Your task to perform on an android device: turn off improve location accuracy Image 0: 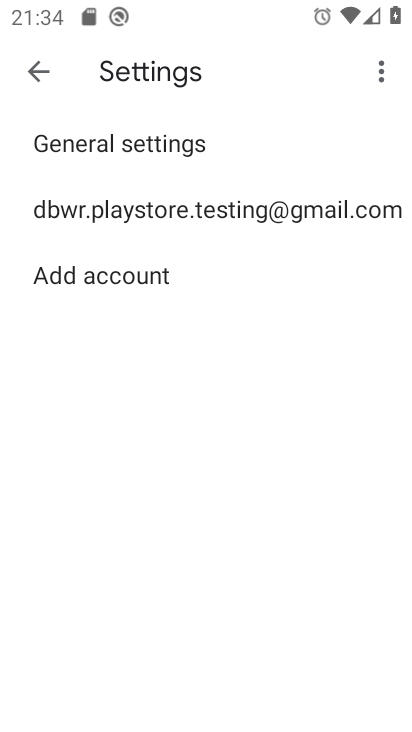
Step 0: press home button
Your task to perform on an android device: turn off improve location accuracy Image 1: 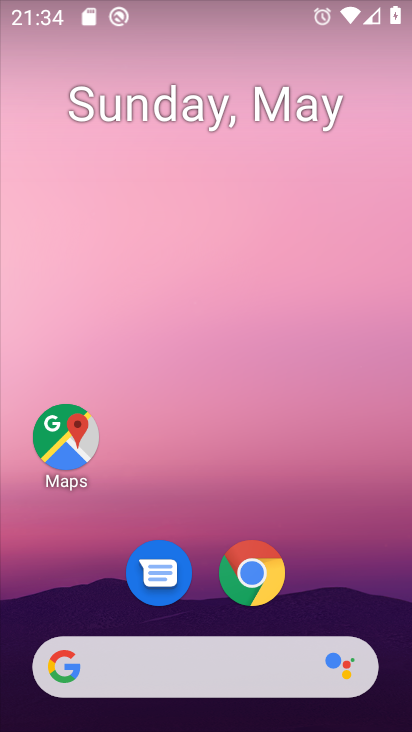
Step 1: drag from (250, 465) to (267, 0)
Your task to perform on an android device: turn off improve location accuracy Image 2: 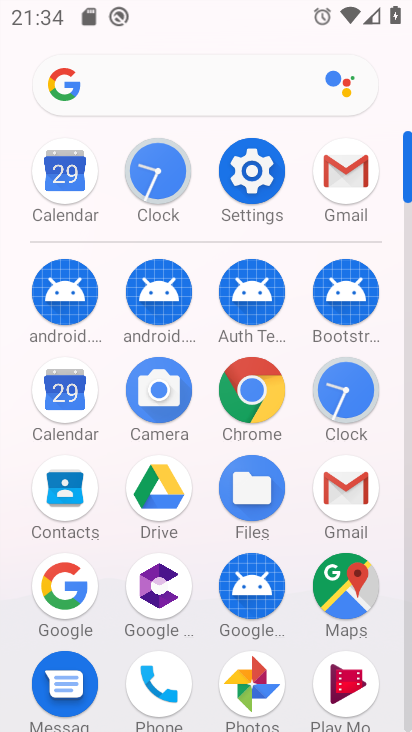
Step 2: click (259, 156)
Your task to perform on an android device: turn off improve location accuracy Image 3: 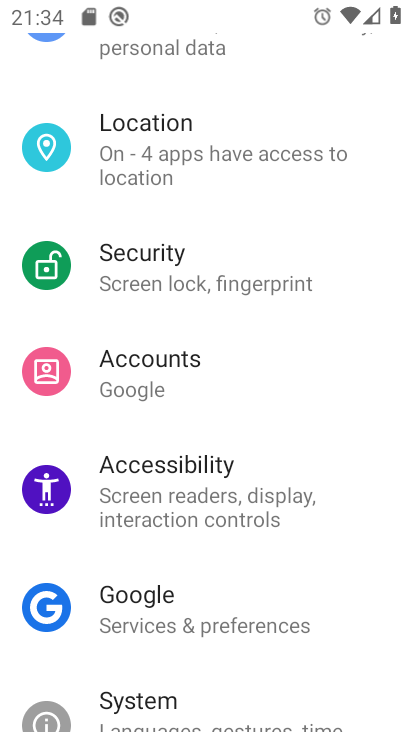
Step 3: click (238, 140)
Your task to perform on an android device: turn off improve location accuracy Image 4: 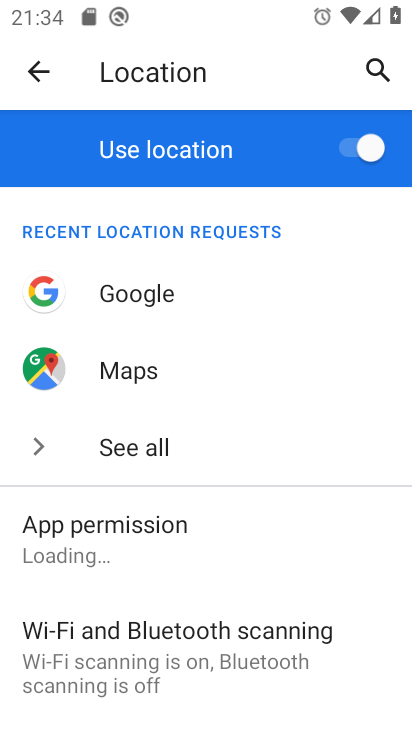
Step 4: drag from (160, 566) to (225, 225)
Your task to perform on an android device: turn off improve location accuracy Image 5: 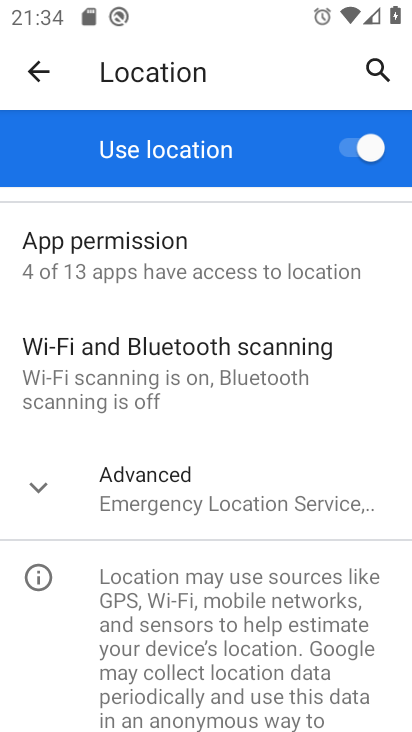
Step 5: click (44, 483)
Your task to perform on an android device: turn off improve location accuracy Image 6: 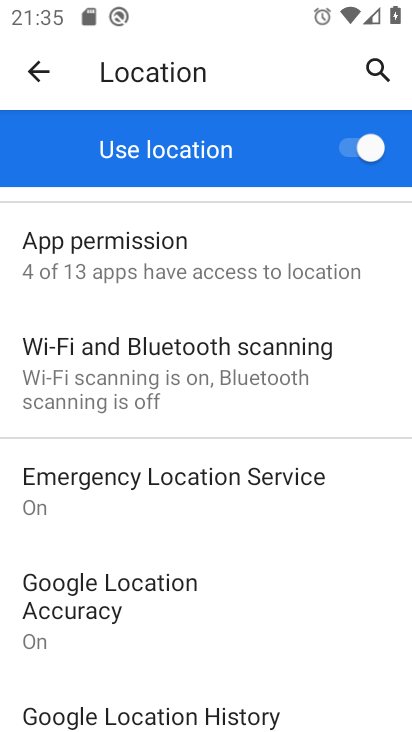
Step 6: click (197, 619)
Your task to perform on an android device: turn off improve location accuracy Image 7: 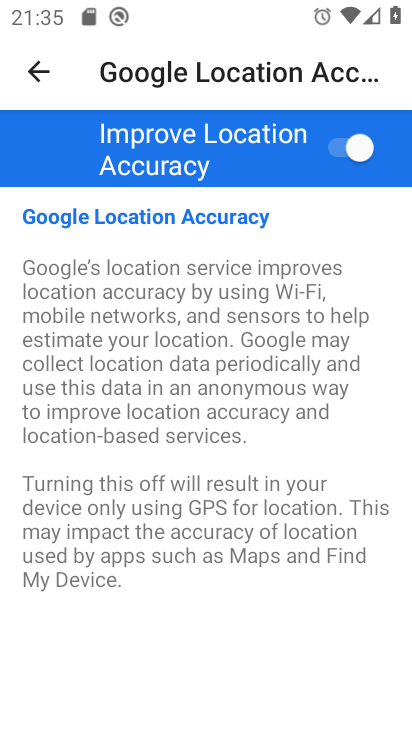
Step 7: click (357, 135)
Your task to perform on an android device: turn off improve location accuracy Image 8: 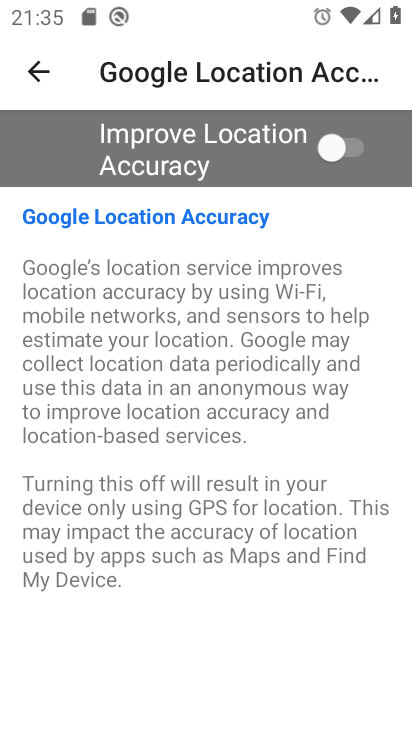
Step 8: task complete